Your task to perform on an android device: visit the assistant section in the google photos Image 0: 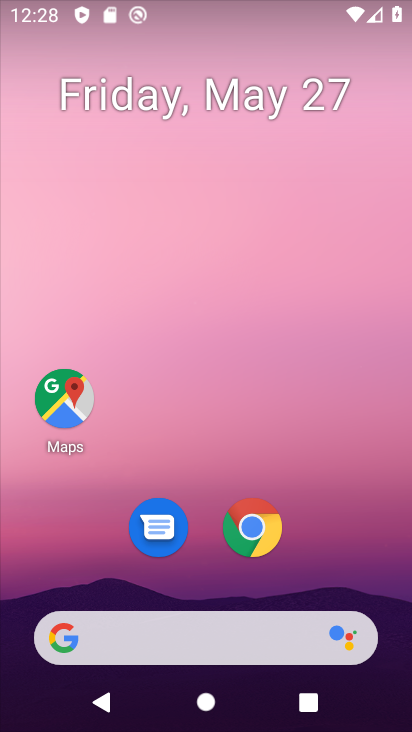
Step 0: drag from (180, 706) to (270, 23)
Your task to perform on an android device: visit the assistant section in the google photos Image 1: 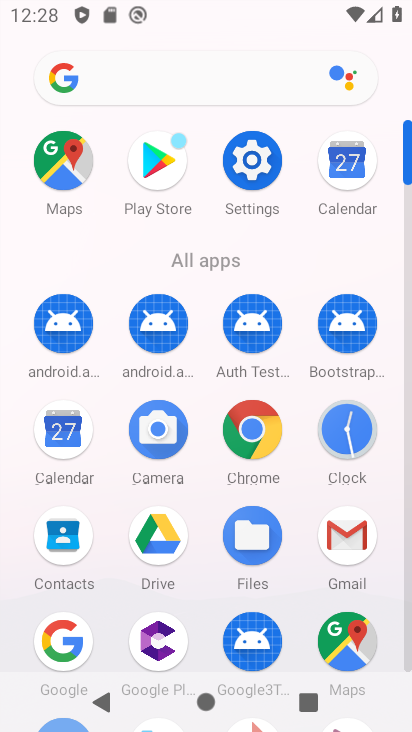
Step 1: drag from (255, 623) to (283, 34)
Your task to perform on an android device: visit the assistant section in the google photos Image 2: 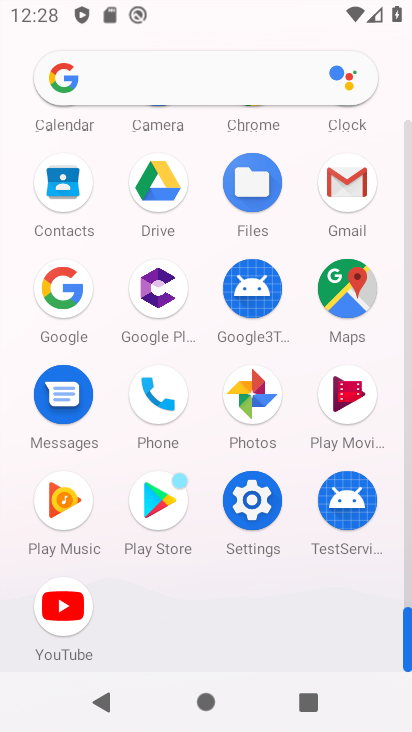
Step 2: click (255, 399)
Your task to perform on an android device: visit the assistant section in the google photos Image 3: 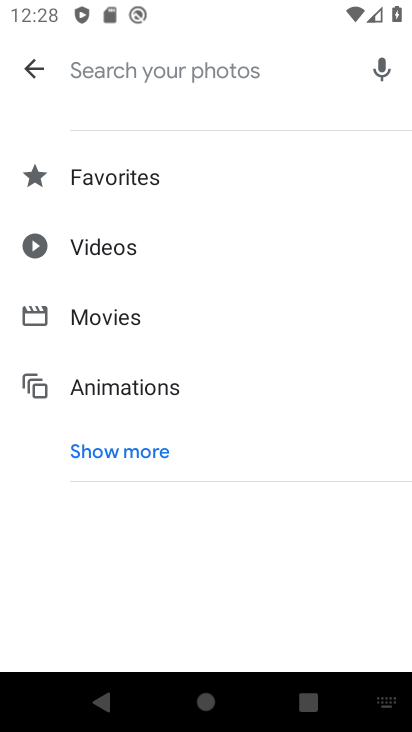
Step 3: click (34, 58)
Your task to perform on an android device: visit the assistant section in the google photos Image 4: 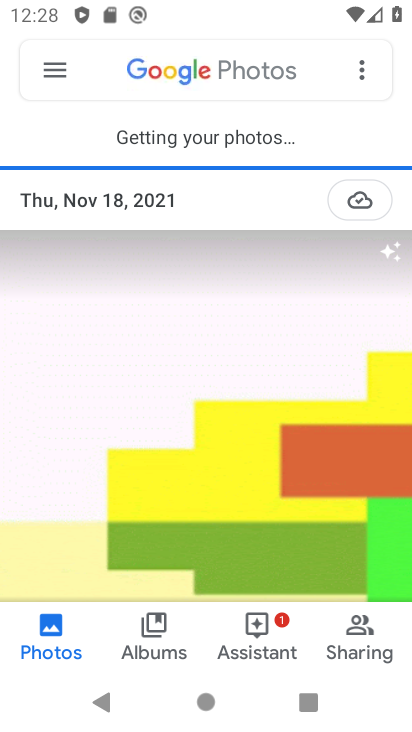
Step 4: click (267, 633)
Your task to perform on an android device: visit the assistant section in the google photos Image 5: 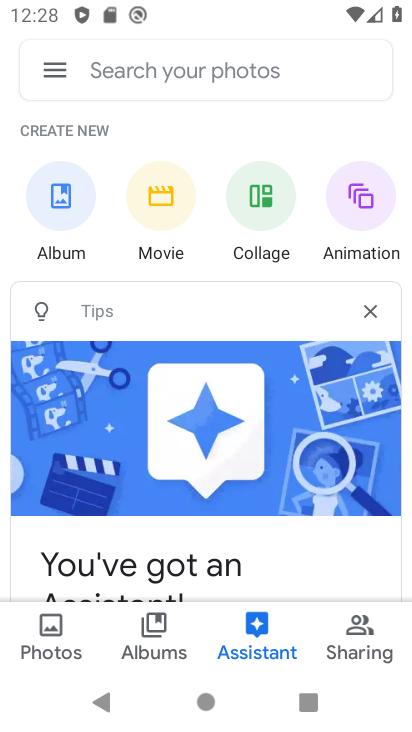
Step 5: task complete